Your task to perform on an android device: delete a single message in the gmail app Image 0: 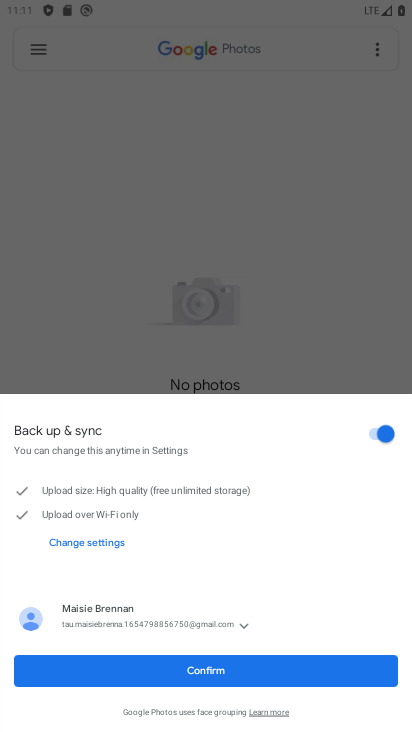
Step 0: press home button
Your task to perform on an android device: delete a single message in the gmail app Image 1: 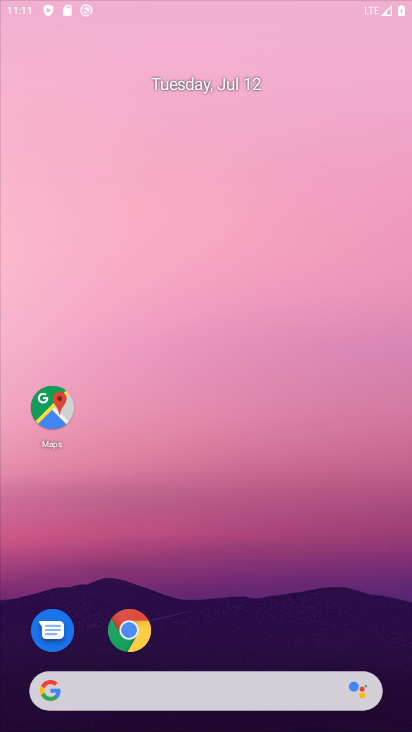
Step 1: drag from (387, 682) to (295, 38)
Your task to perform on an android device: delete a single message in the gmail app Image 2: 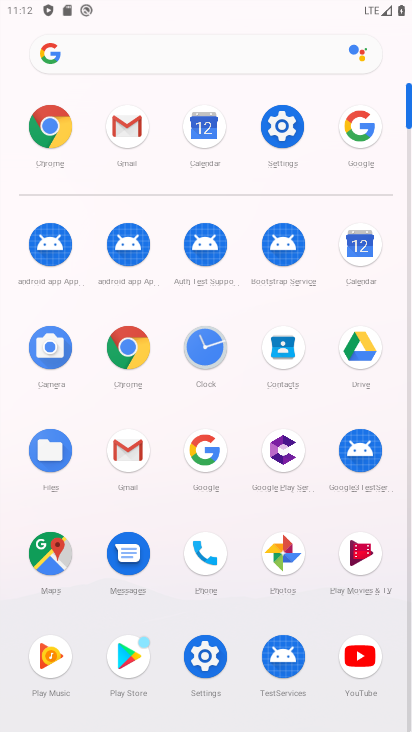
Step 2: click (133, 454)
Your task to perform on an android device: delete a single message in the gmail app Image 3: 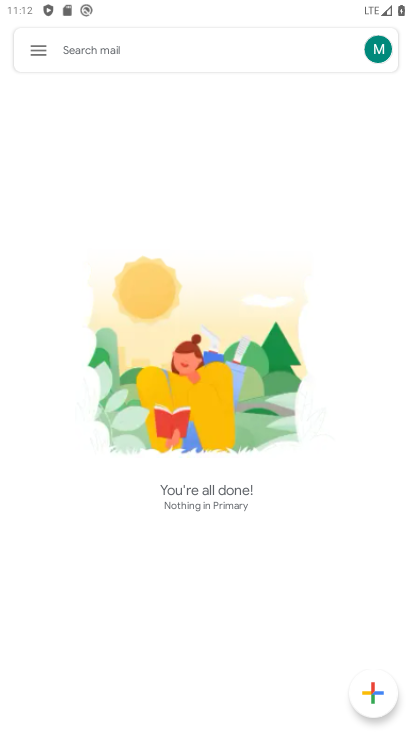
Step 3: task complete